Your task to perform on an android device: create a new album in the google photos Image 0: 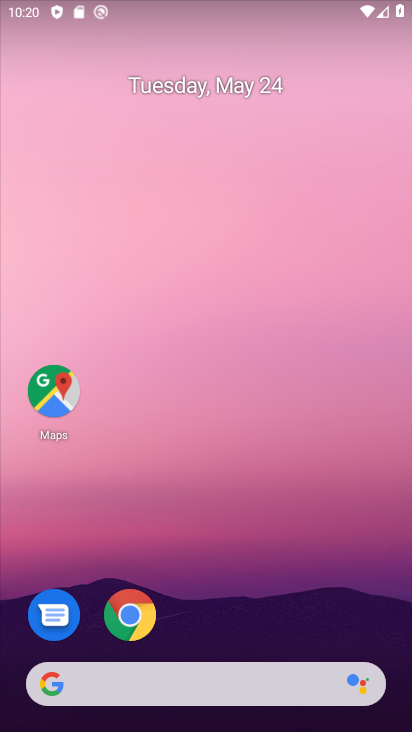
Step 0: drag from (281, 562) to (184, 102)
Your task to perform on an android device: create a new album in the google photos Image 1: 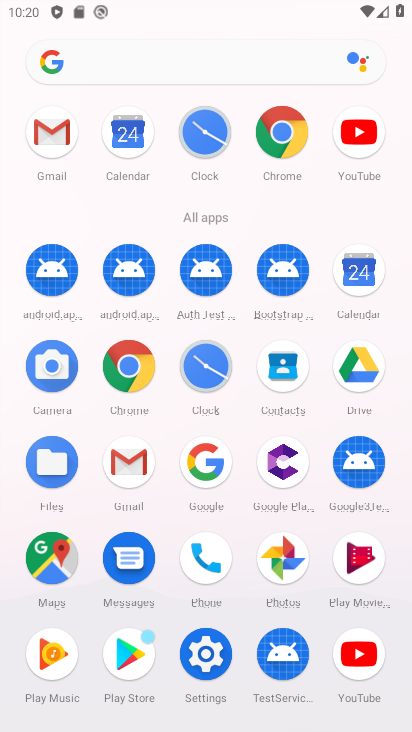
Step 1: click (283, 559)
Your task to perform on an android device: create a new album in the google photos Image 2: 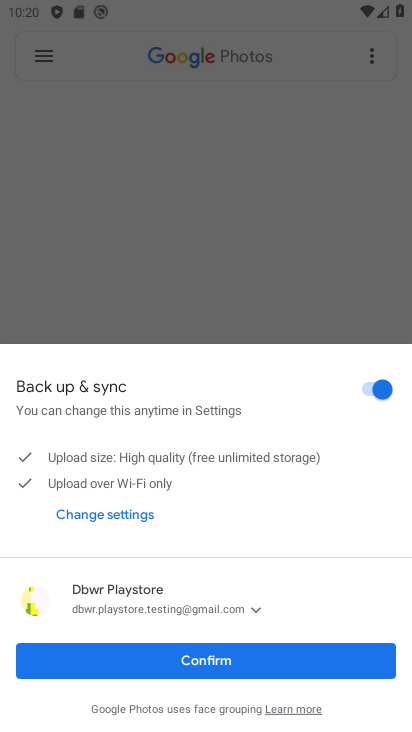
Step 2: click (246, 656)
Your task to perform on an android device: create a new album in the google photos Image 3: 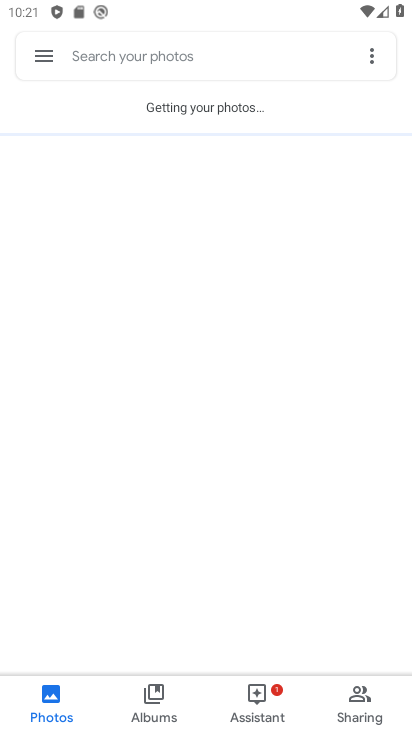
Step 3: click (155, 707)
Your task to perform on an android device: create a new album in the google photos Image 4: 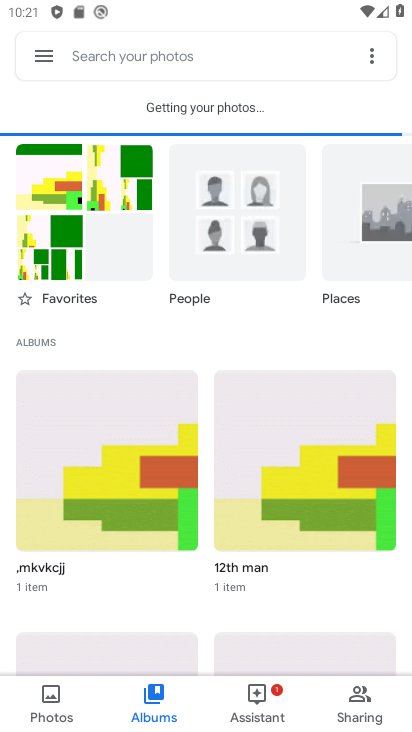
Step 4: click (253, 491)
Your task to perform on an android device: create a new album in the google photos Image 5: 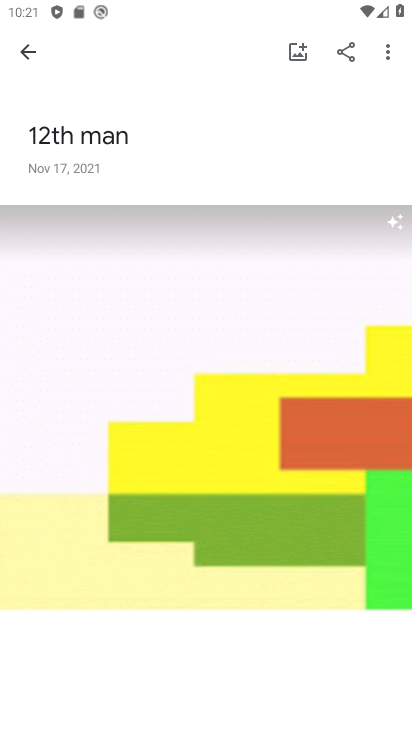
Step 5: click (380, 41)
Your task to perform on an android device: create a new album in the google photos Image 6: 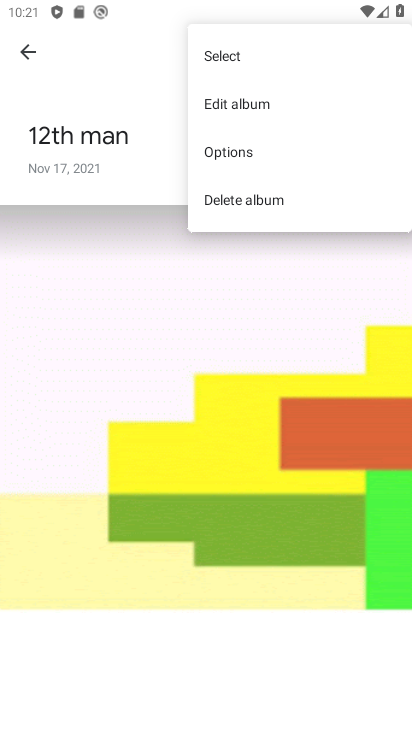
Step 6: click (216, 417)
Your task to perform on an android device: create a new album in the google photos Image 7: 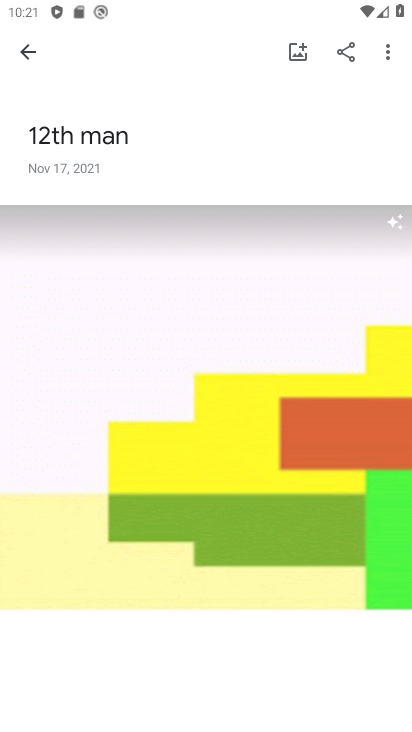
Step 7: click (389, 40)
Your task to perform on an android device: create a new album in the google photos Image 8: 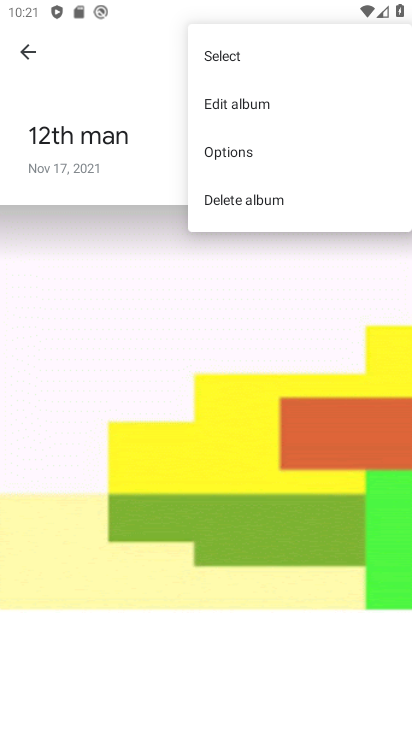
Step 8: click (324, 37)
Your task to perform on an android device: create a new album in the google photos Image 9: 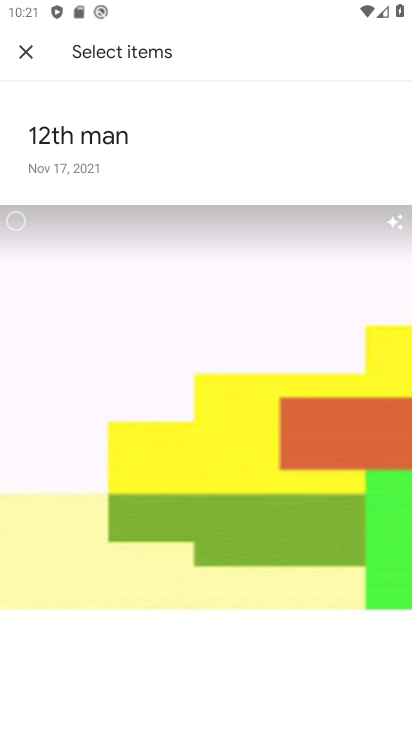
Step 9: click (11, 213)
Your task to perform on an android device: create a new album in the google photos Image 10: 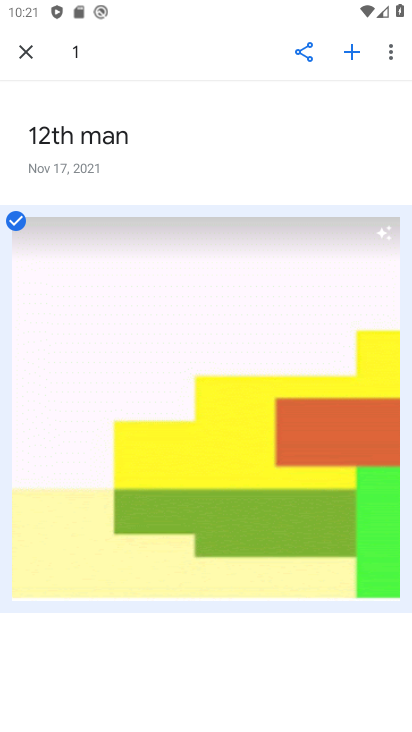
Step 10: click (342, 44)
Your task to perform on an android device: create a new album in the google photos Image 11: 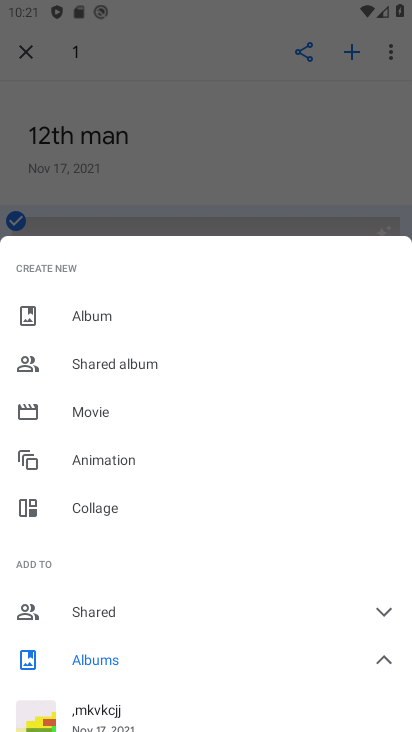
Step 11: drag from (179, 650) to (179, 498)
Your task to perform on an android device: create a new album in the google photos Image 12: 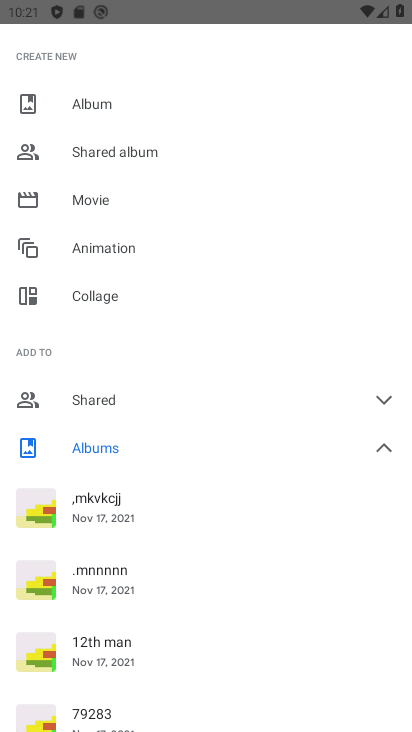
Step 12: click (102, 93)
Your task to perform on an android device: create a new album in the google photos Image 13: 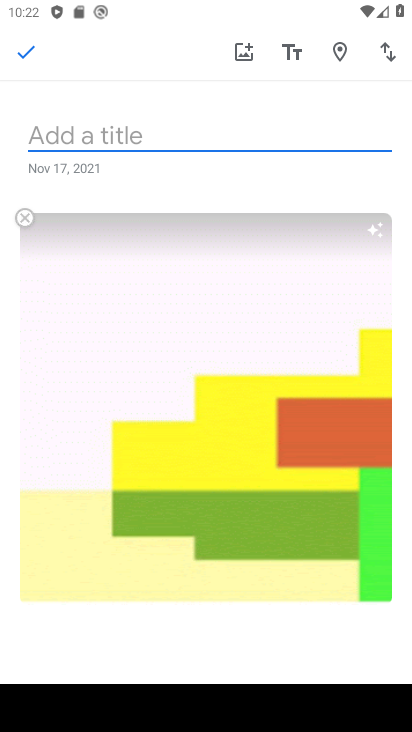
Step 13: type "egdeg"
Your task to perform on an android device: create a new album in the google photos Image 14: 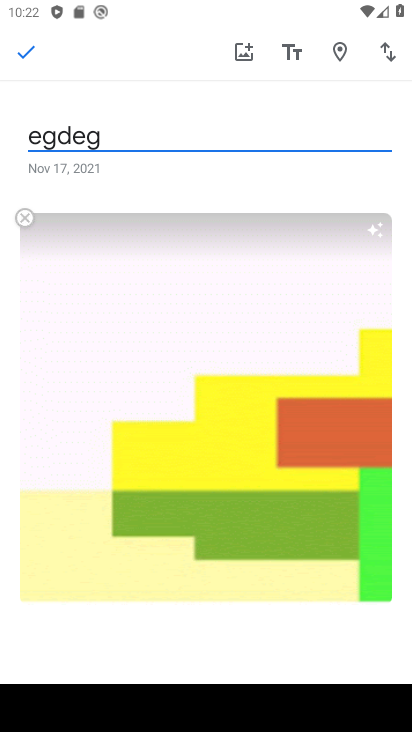
Step 14: click (28, 46)
Your task to perform on an android device: create a new album in the google photos Image 15: 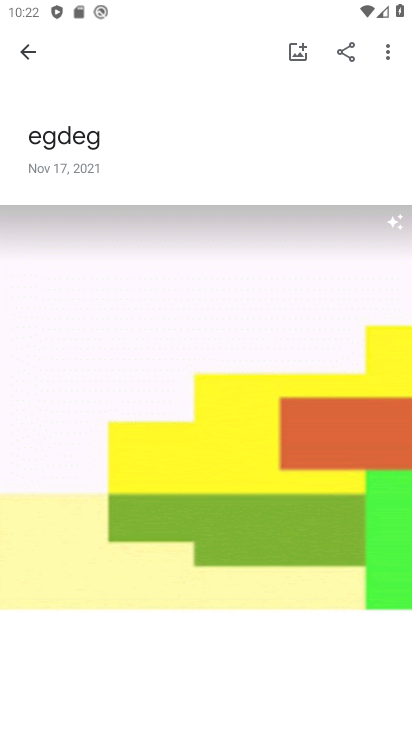
Step 15: task complete